Your task to perform on an android device: Go to settings Image 0: 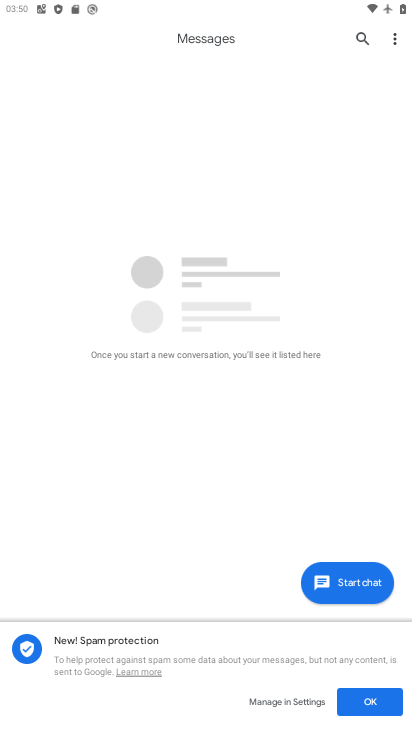
Step 0: press home button
Your task to perform on an android device: Go to settings Image 1: 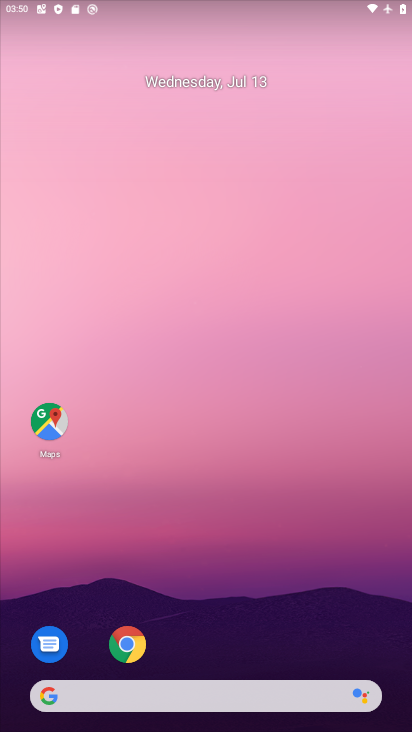
Step 1: drag from (275, 571) to (251, 138)
Your task to perform on an android device: Go to settings Image 2: 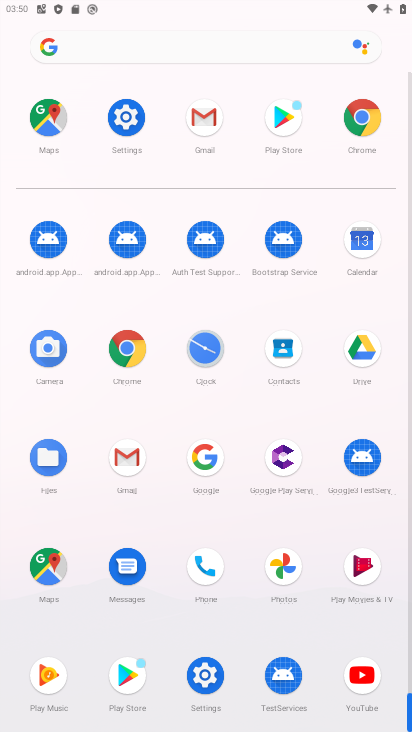
Step 2: click (130, 126)
Your task to perform on an android device: Go to settings Image 3: 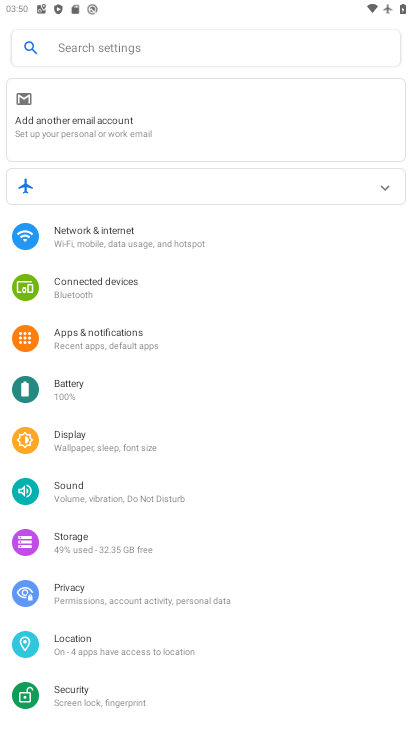
Step 3: task complete